Your task to perform on an android device: Open Google Chrome and click the shortcut for Amazon.com Image 0: 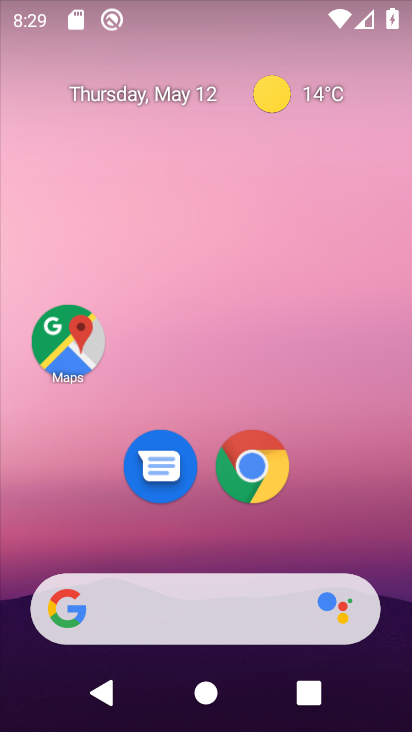
Step 0: press home button
Your task to perform on an android device: Open Google Chrome and click the shortcut for Amazon.com Image 1: 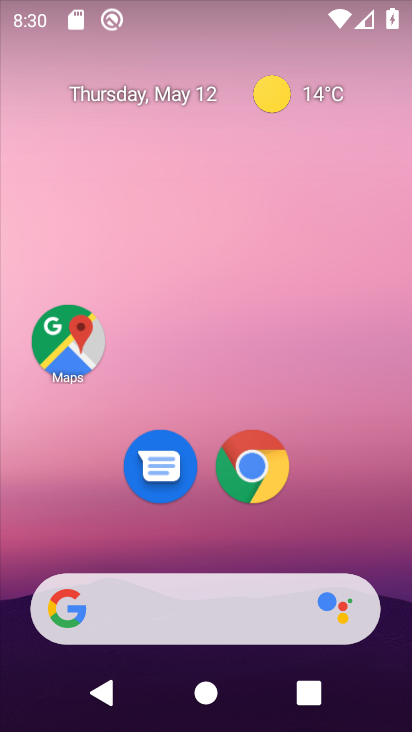
Step 1: click (251, 451)
Your task to perform on an android device: Open Google Chrome and click the shortcut for Amazon.com Image 2: 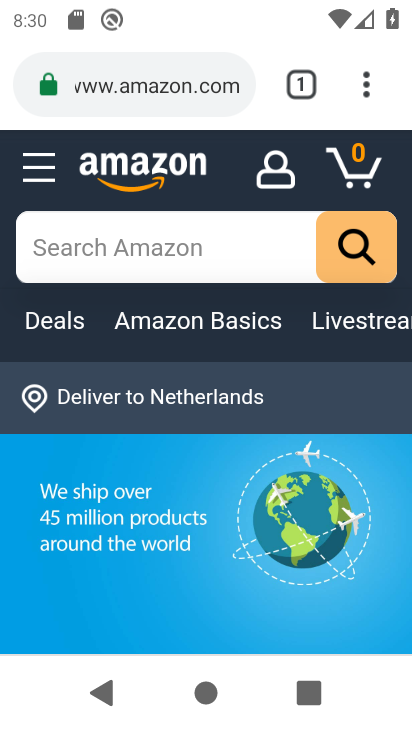
Step 2: task complete